Your task to perform on an android device: Open Maps and search for coffee Image 0: 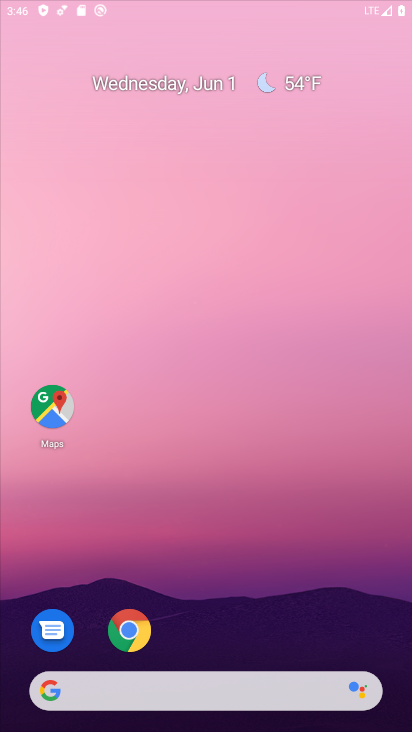
Step 0: drag from (200, 269) to (164, 10)
Your task to perform on an android device: Open Maps and search for coffee Image 1: 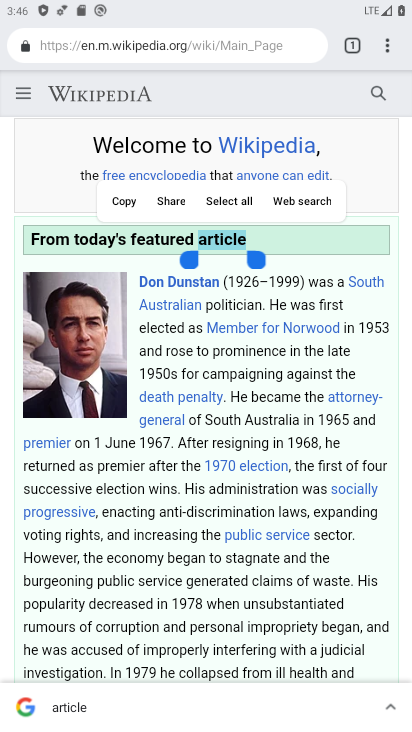
Step 1: press back button
Your task to perform on an android device: Open Maps and search for coffee Image 2: 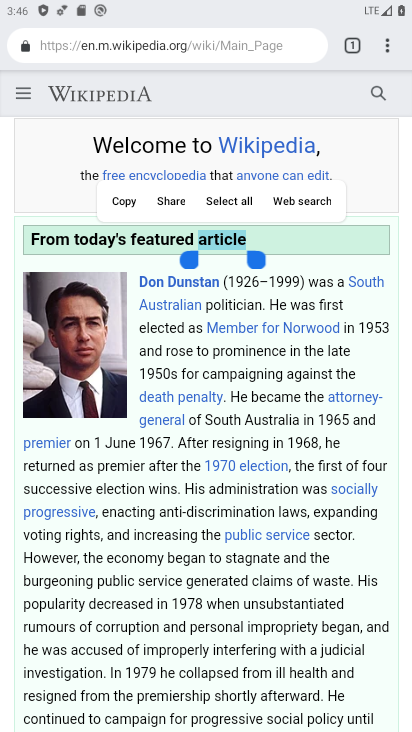
Step 2: press home button
Your task to perform on an android device: Open Maps and search for coffee Image 3: 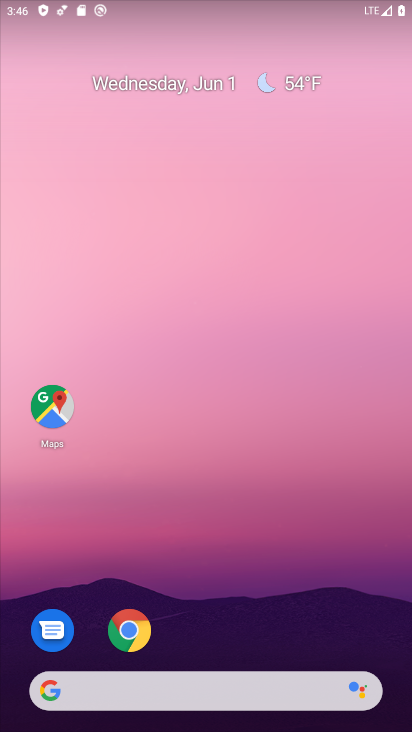
Step 3: drag from (258, 553) to (224, 61)
Your task to perform on an android device: Open Maps and search for coffee Image 4: 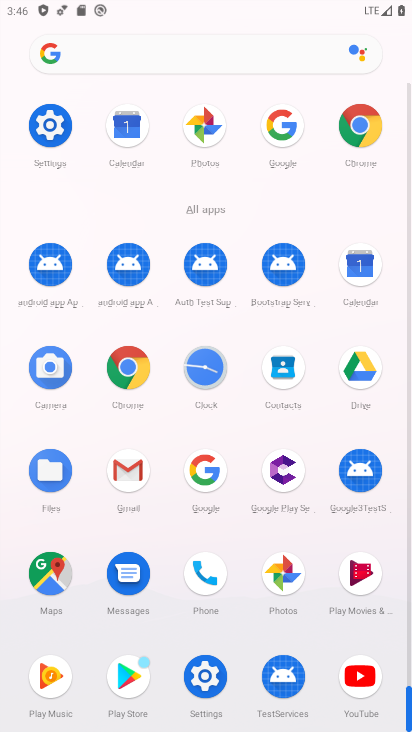
Step 4: click (40, 576)
Your task to perform on an android device: Open Maps and search for coffee Image 5: 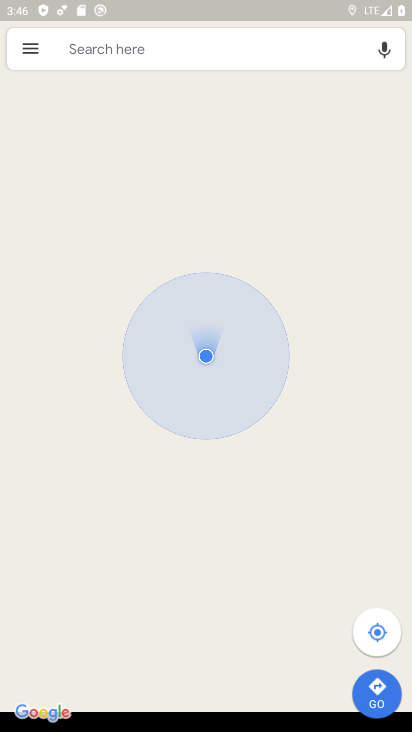
Step 5: click (181, 47)
Your task to perform on an android device: Open Maps and search for coffee Image 6: 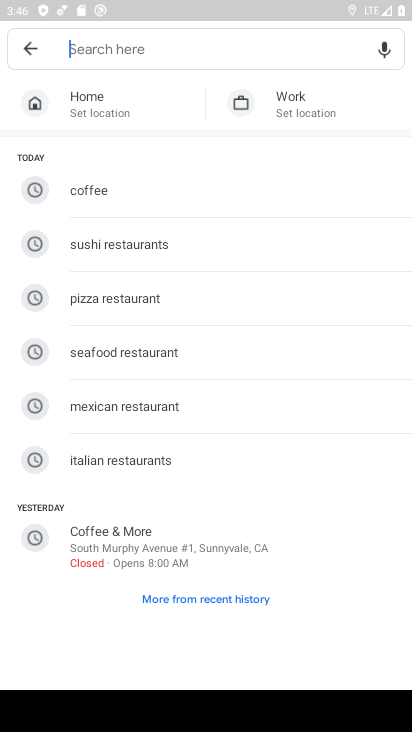
Step 6: click (100, 175)
Your task to perform on an android device: Open Maps and search for coffee Image 7: 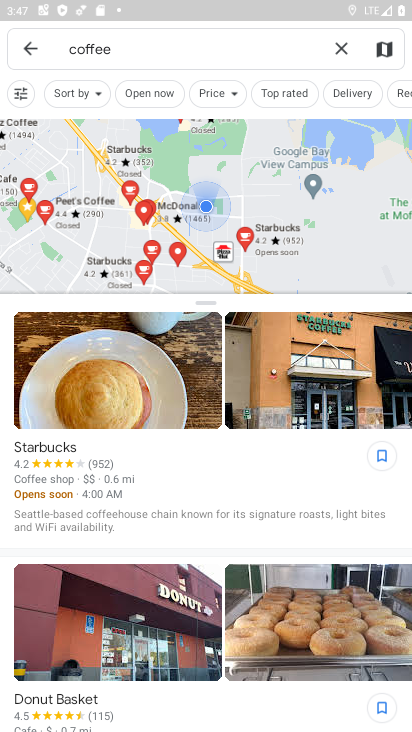
Step 7: task complete